Your task to perform on an android device: Go to calendar. Show me events next week Image 0: 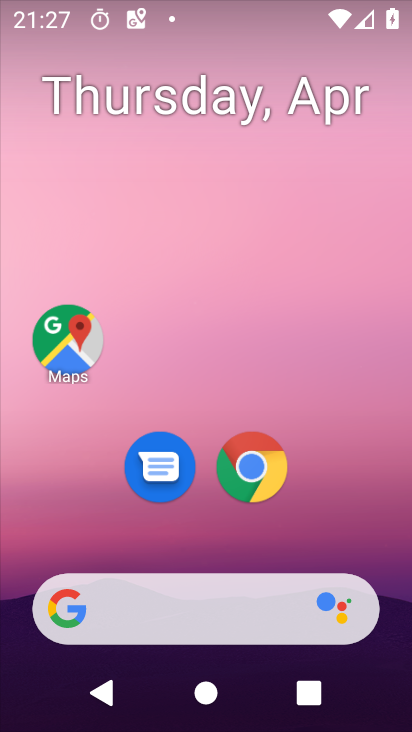
Step 0: drag from (220, 562) to (317, 21)
Your task to perform on an android device: Go to calendar. Show me events next week Image 1: 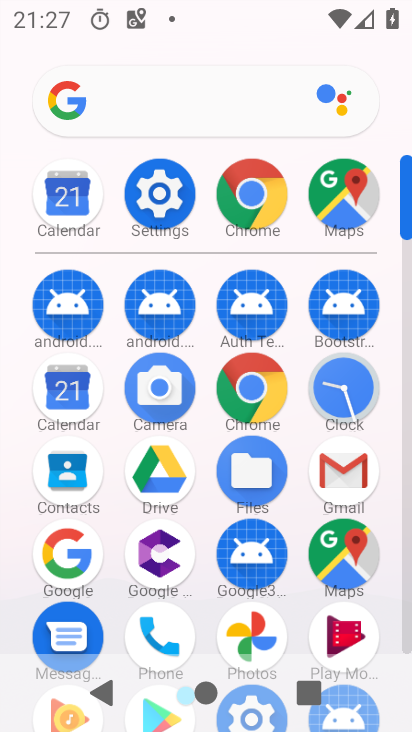
Step 1: click (73, 204)
Your task to perform on an android device: Go to calendar. Show me events next week Image 2: 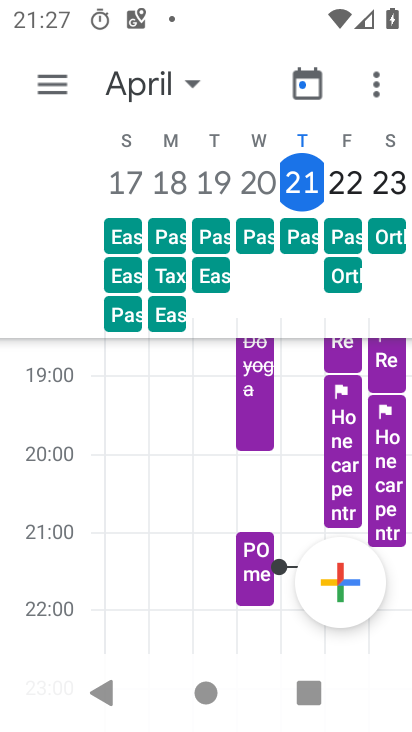
Step 2: task complete